Your task to perform on an android device: set default search engine in the chrome app Image 0: 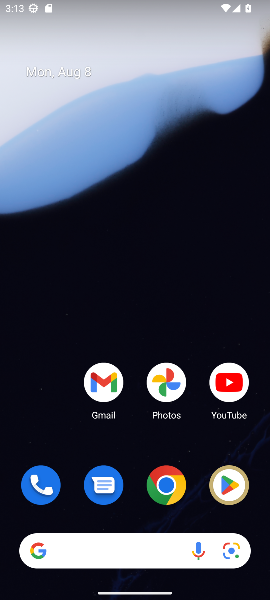
Step 0: drag from (193, 541) to (104, 116)
Your task to perform on an android device: set default search engine in the chrome app Image 1: 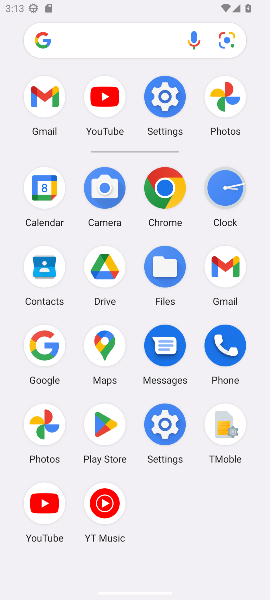
Step 1: drag from (140, 417) to (160, 179)
Your task to perform on an android device: set default search engine in the chrome app Image 2: 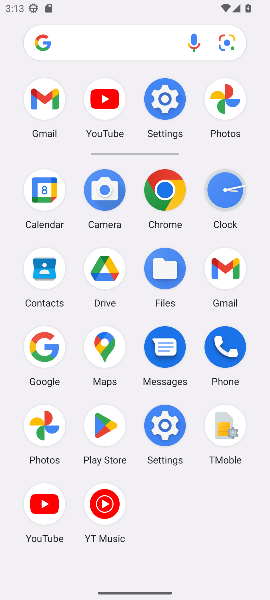
Step 2: click (169, 185)
Your task to perform on an android device: set default search engine in the chrome app Image 3: 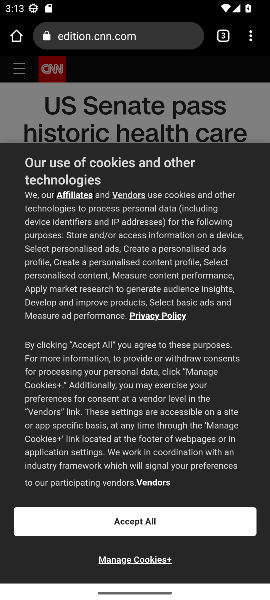
Step 3: drag from (257, 37) to (138, 452)
Your task to perform on an android device: set default search engine in the chrome app Image 4: 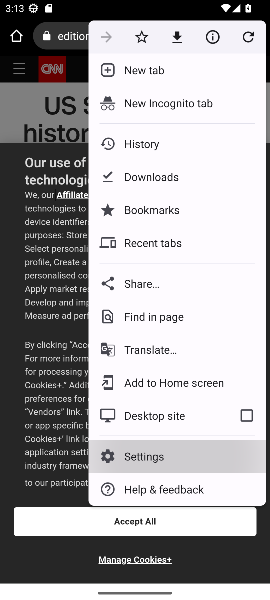
Step 4: click (138, 452)
Your task to perform on an android device: set default search engine in the chrome app Image 5: 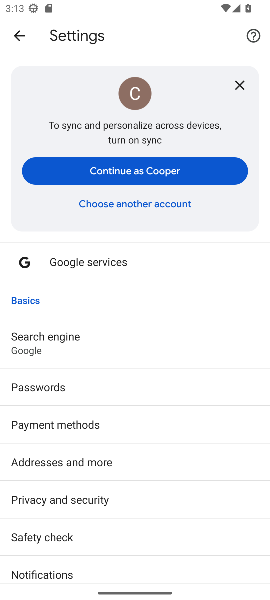
Step 5: click (38, 345)
Your task to perform on an android device: set default search engine in the chrome app Image 6: 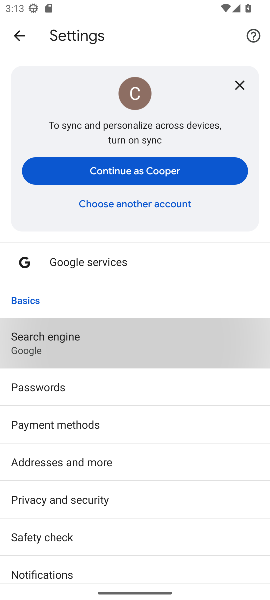
Step 6: click (38, 345)
Your task to perform on an android device: set default search engine in the chrome app Image 7: 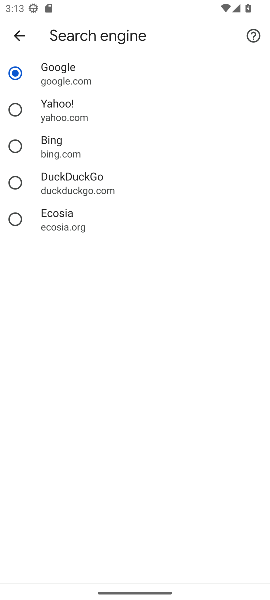
Step 7: click (13, 107)
Your task to perform on an android device: set default search engine in the chrome app Image 8: 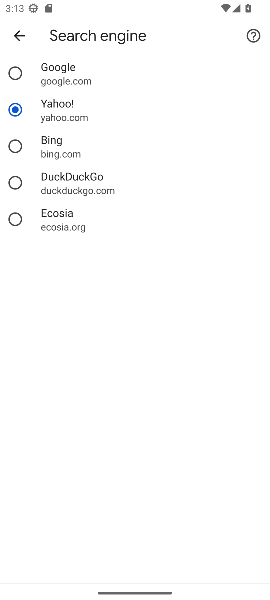
Step 8: task complete